Your task to perform on an android device: Open Reddit.com Image 0: 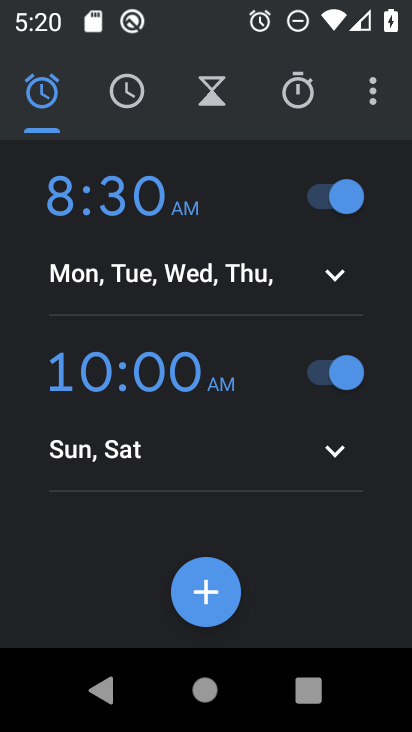
Step 0: press home button
Your task to perform on an android device: Open Reddit.com Image 1: 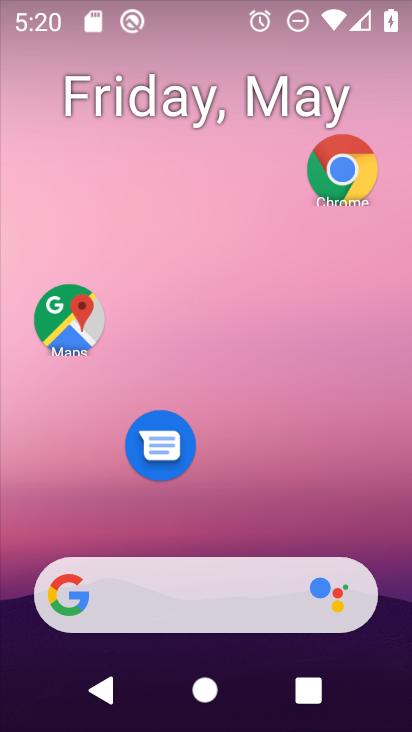
Step 1: click (351, 175)
Your task to perform on an android device: Open Reddit.com Image 2: 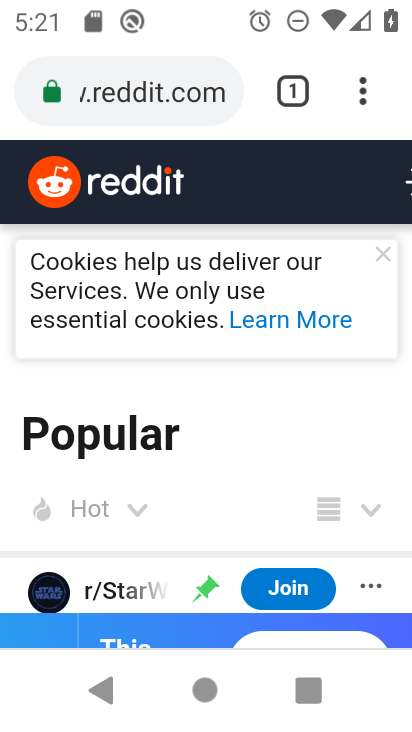
Step 2: task complete